Your task to perform on an android device: Search for Mexican restaurants on Maps Image 0: 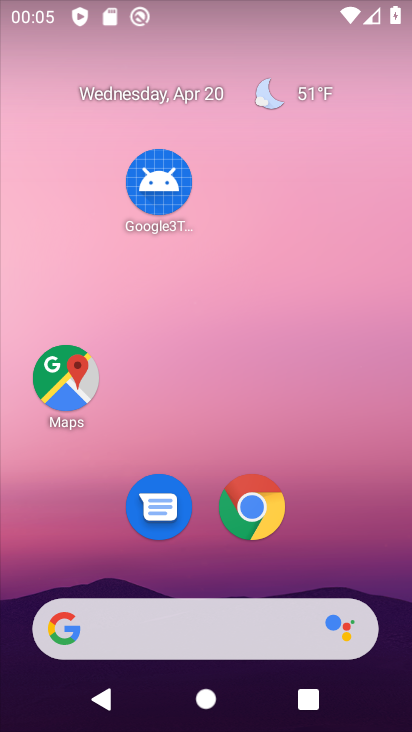
Step 0: click (59, 391)
Your task to perform on an android device: Search for Mexican restaurants on Maps Image 1: 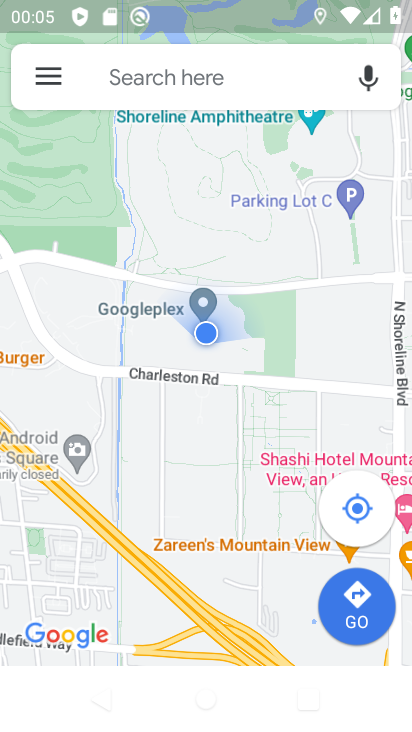
Step 1: click (132, 66)
Your task to perform on an android device: Search for Mexican restaurants on Maps Image 2: 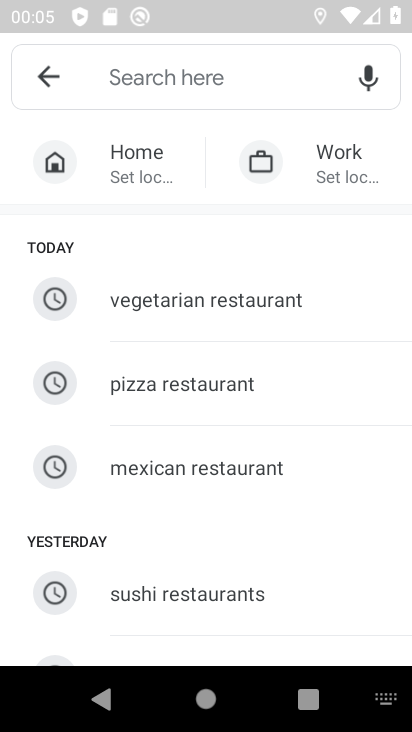
Step 2: click (197, 471)
Your task to perform on an android device: Search for Mexican restaurants on Maps Image 3: 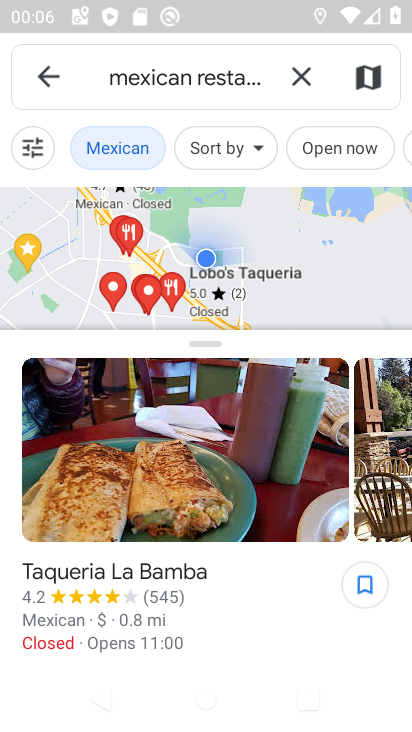
Step 3: task complete